Your task to perform on an android device: turn notification dots off Image 0: 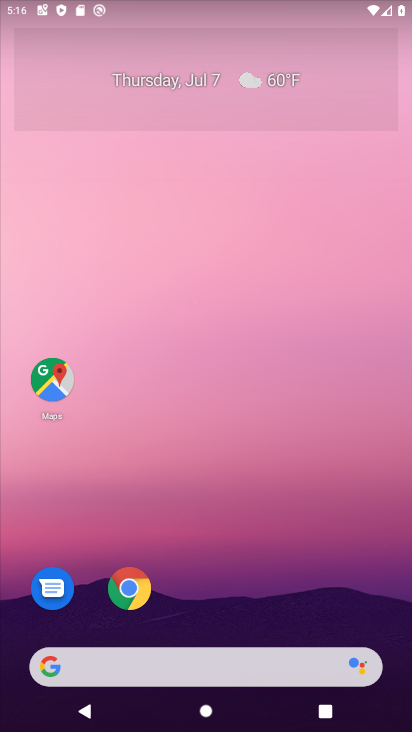
Step 0: drag from (243, 499) to (266, 40)
Your task to perform on an android device: turn notification dots off Image 1: 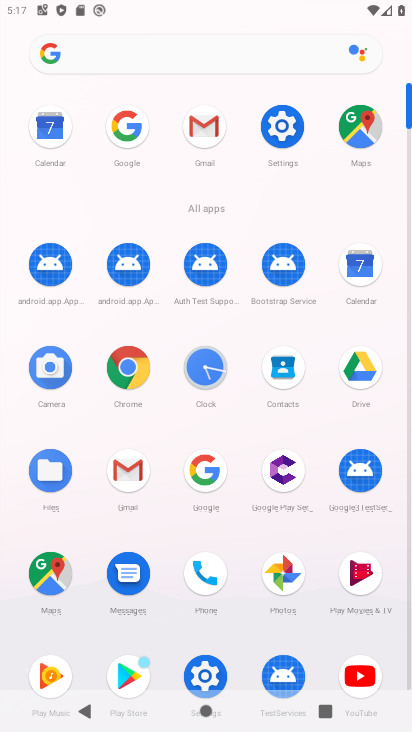
Step 1: click (297, 125)
Your task to perform on an android device: turn notification dots off Image 2: 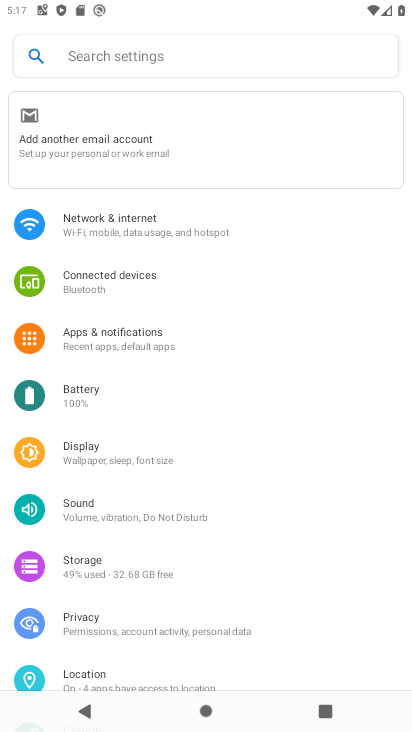
Step 2: click (160, 342)
Your task to perform on an android device: turn notification dots off Image 3: 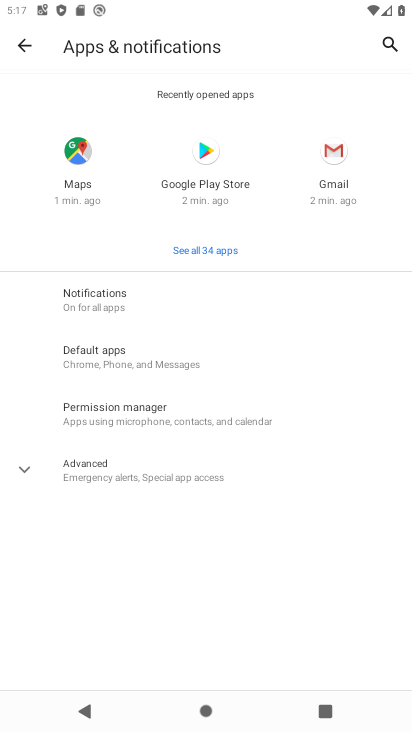
Step 3: click (107, 311)
Your task to perform on an android device: turn notification dots off Image 4: 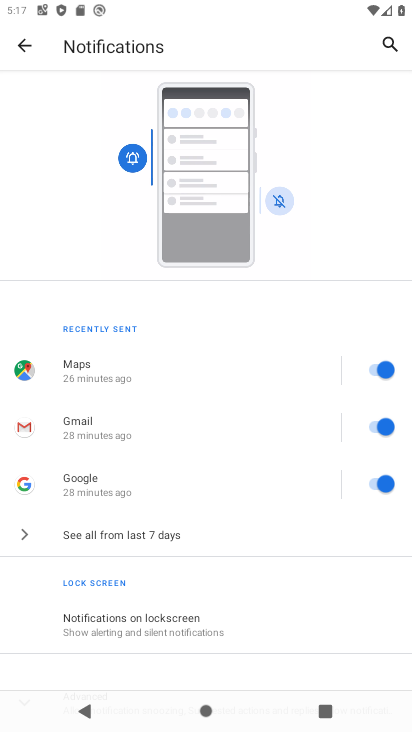
Step 4: drag from (121, 597) to (215, 161)
Your task to perform on an android device: turn notification dots off Image 5: 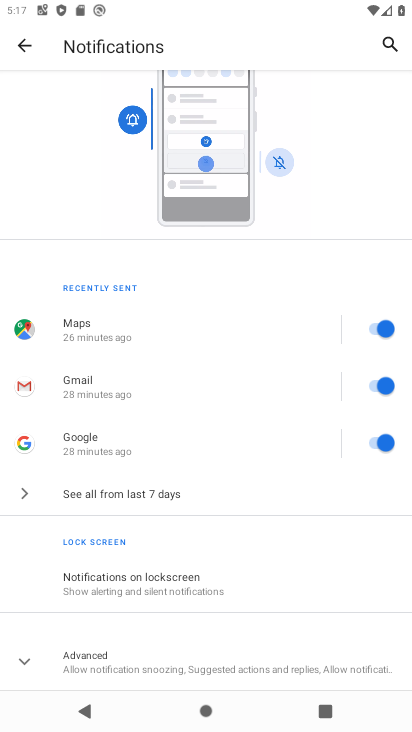
Step 5: drag from (170, 635) to (235, 153)
Your task to perform on an android device: turn notification dots off Image 6: 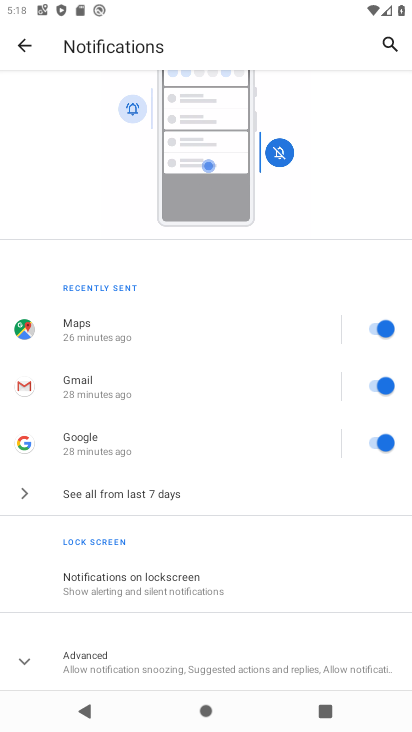
Step 6: drag from (138, 624) to (193, 127)
Your task to perform on an android device: turn notification dots off Image 7: 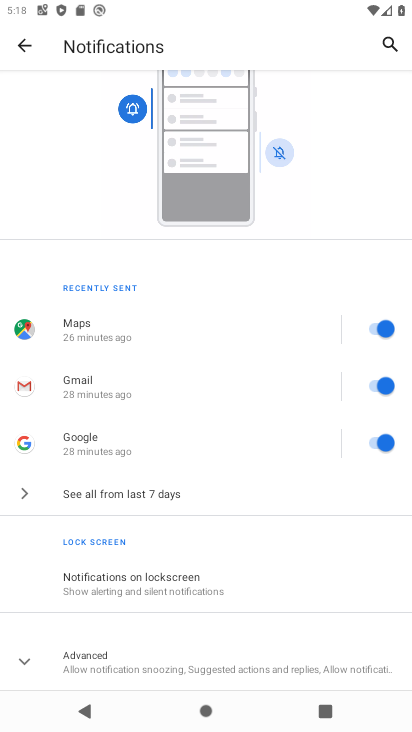
Step 7: click (102, 644)
Your task to perform on an android device: turn notification dots off Image 8: 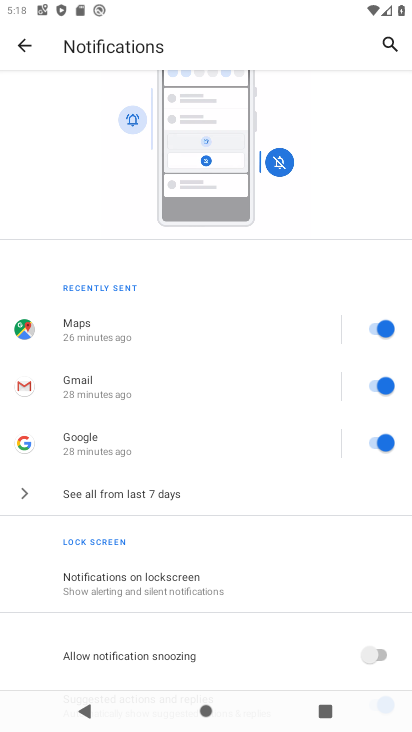
Step 8: drag from (170, 648) to (242, 89)
Your task to perform on an android device: turn notification dots off Image 9: 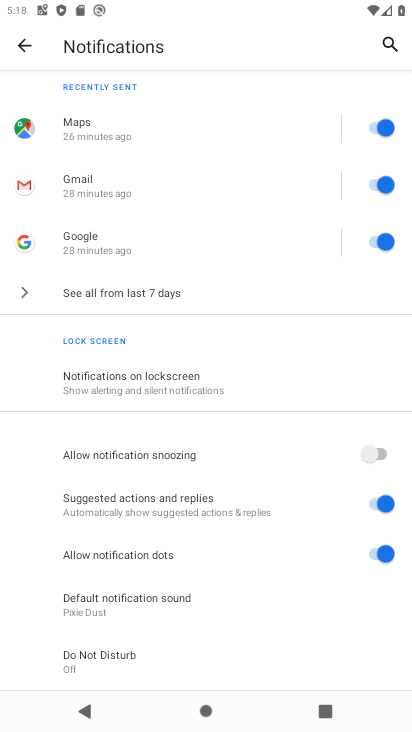
Step 9: click (384, 556)
Your task to perform on an android device: turn notification dots off Image 10: 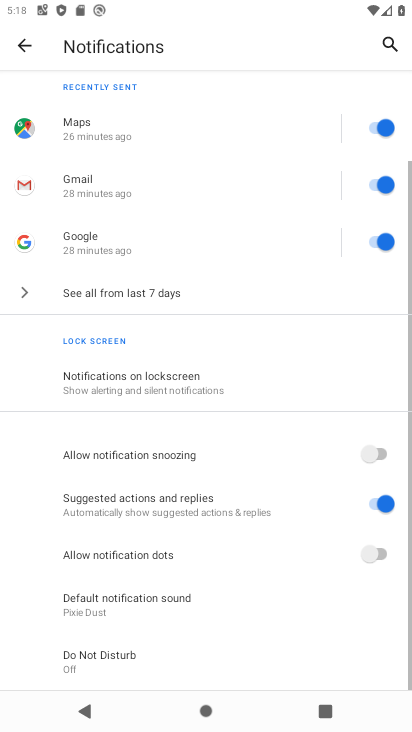
Step 10: task complete